Your task to perform on an android device: turn off improve location accuracy Image 0: 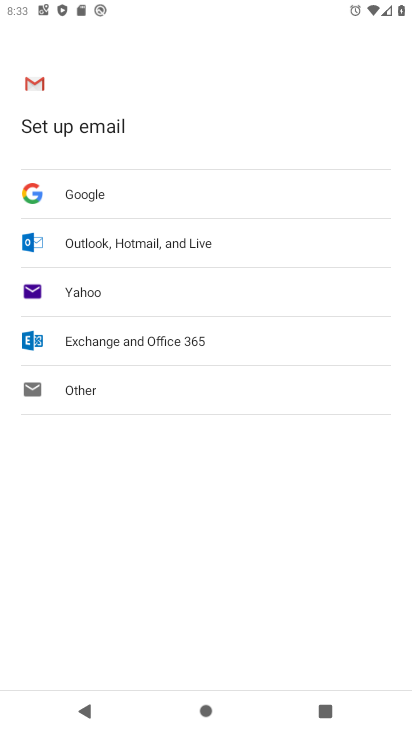
Step 0: press home button
Your task to perform on an android device: turn off improve location accuracy Image 1: 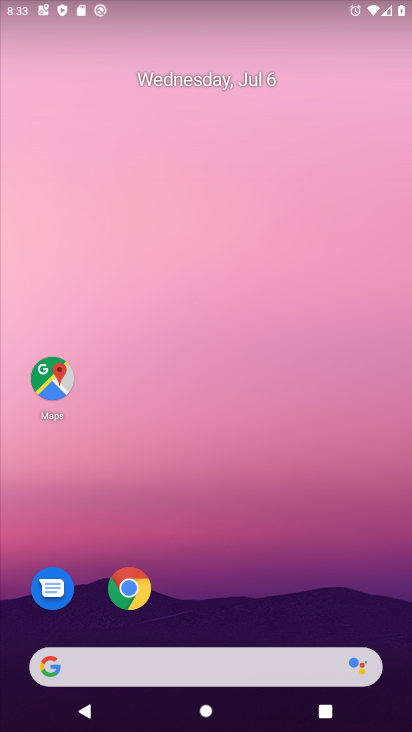
Step 1: drag from (233, 548) to (205, 208)
Your task to perform on an android device: turn off improve location accuracy Image 2: 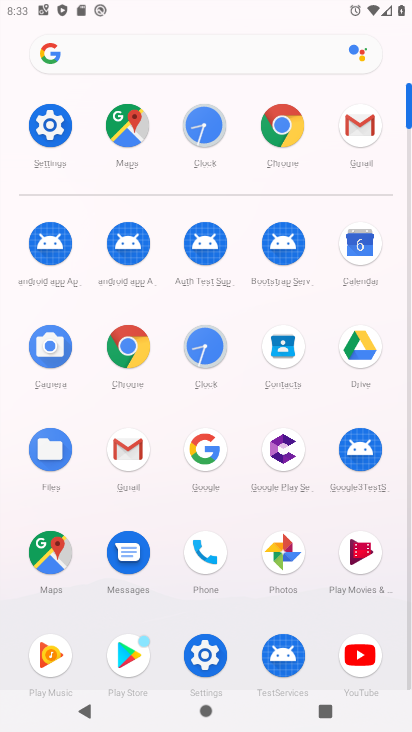
Step 2: click (39, 103)
Your task to perform on an android device: turn off improve location accuracy Image 3: 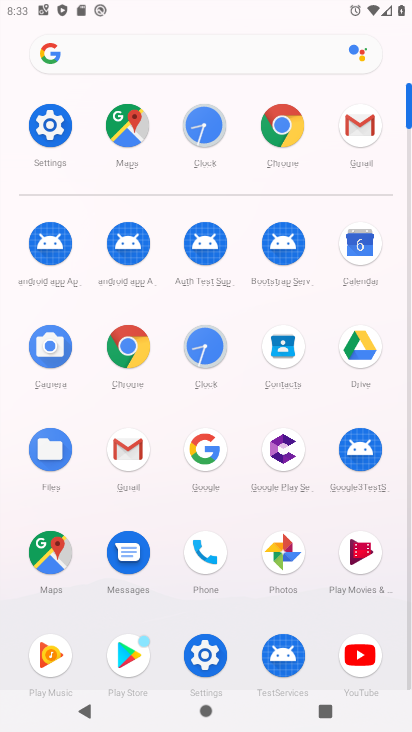
Step 3: click (48, 120)
Your task to perform on an android device: turn off improve location accuracy Image 4: 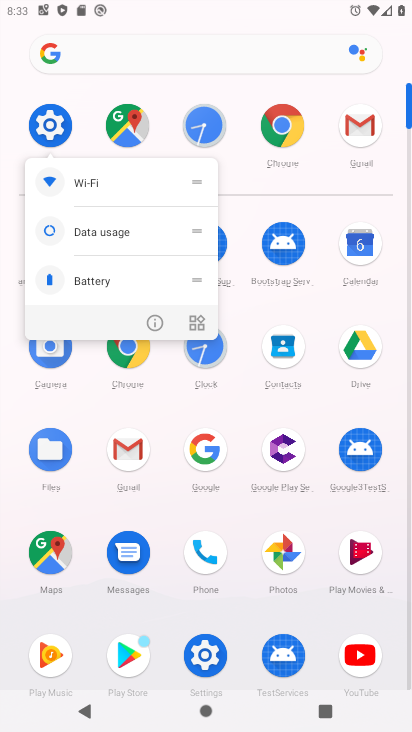
Step 4: click (48, 122)
Your task to perform on an android device: turn off improve location accuracy Image 5: 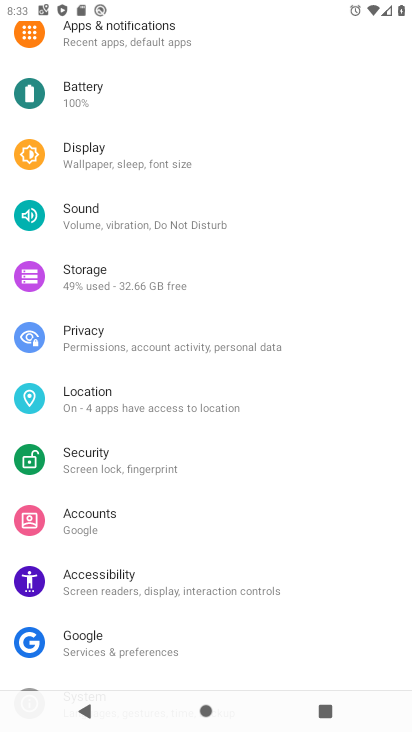
Step 5: click (145, 391)
Your task to perform on an android device: turn off improve location accuracy Image 6: 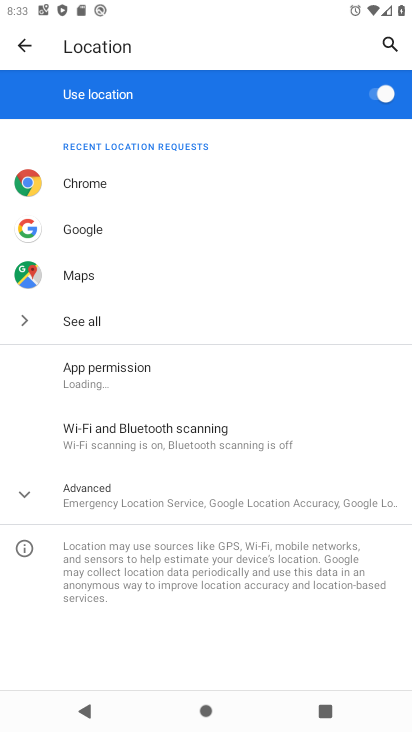
Step 6: click (172, 507)
Your task to perform on an android device: turn off improve location accuracy Image 7: 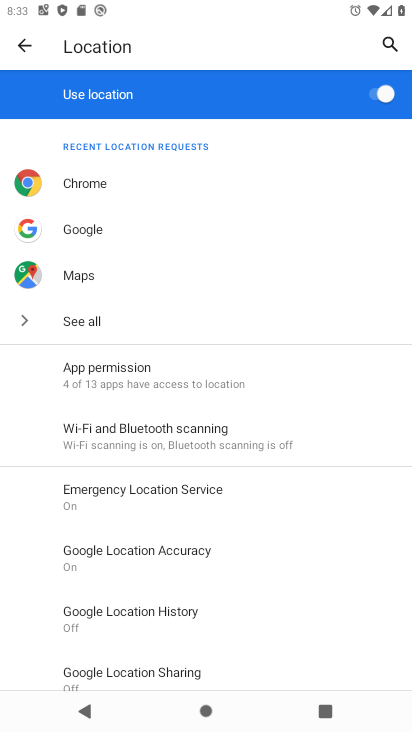
Step 7: click (148, 545)
Your task to perform on an android device: turn off improve location accuracy Image 8: 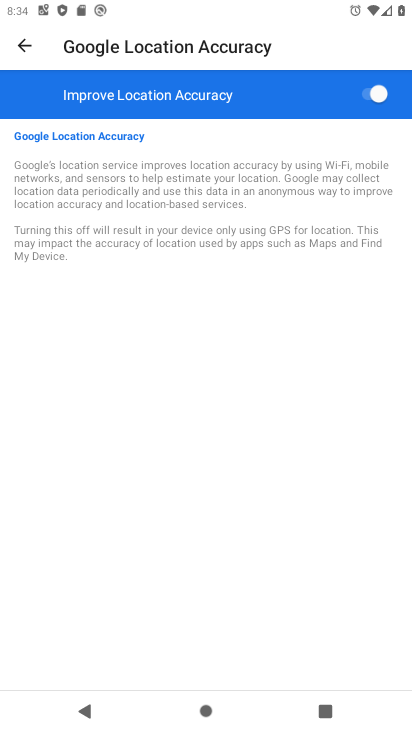
Step 8: click (369, 87)
Your task to perform on an android device: turn off improve location accuracy Image 9: 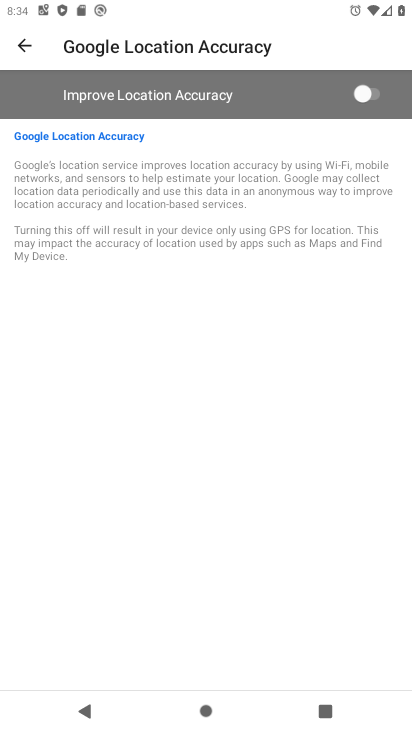
Step 9: task complete